Your task to perform on an android device: Go to Google maps Image 0: 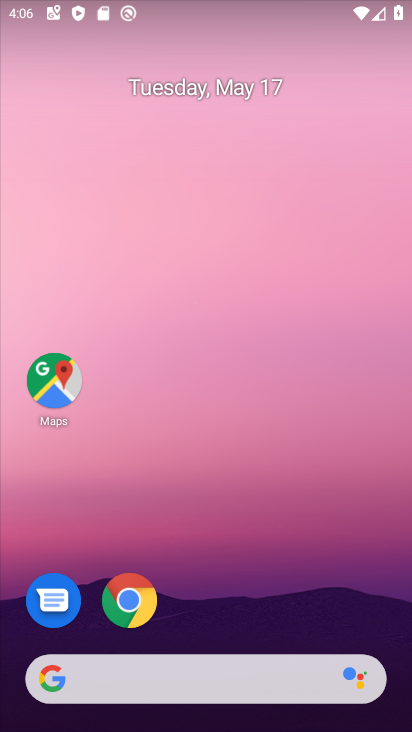
Step 0: drag from (225, 618) to (315, 48)
Your task to perform on an android device: Go to Google maps Image 1: 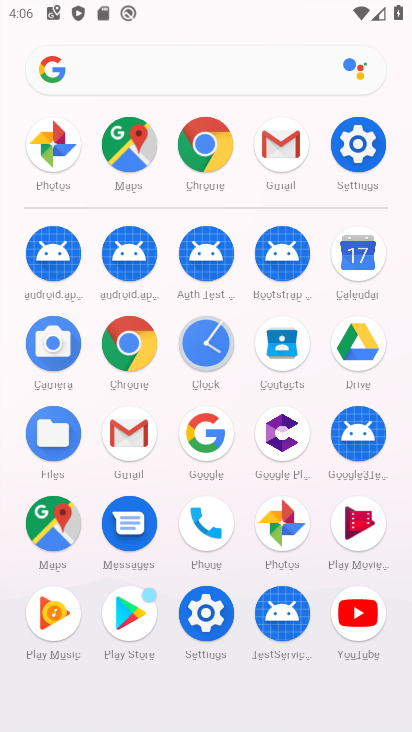
Step 1: click (48, 521)
Your task to perform on an android device: Go to Google maps Image 2: 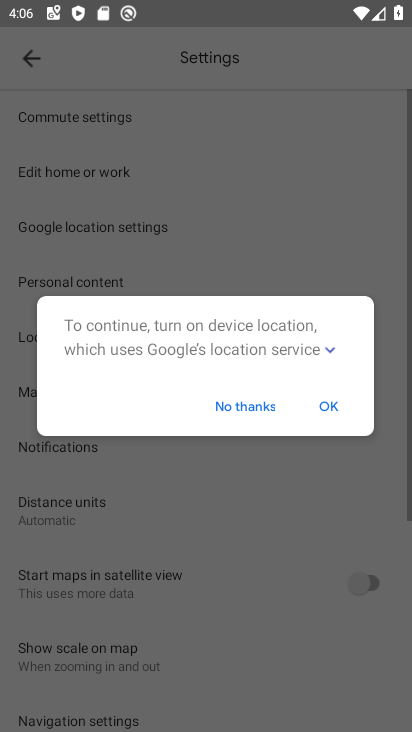
Step 2: click (40, 73)
Your task to perform on an android device: Go to Google maps Image 3: 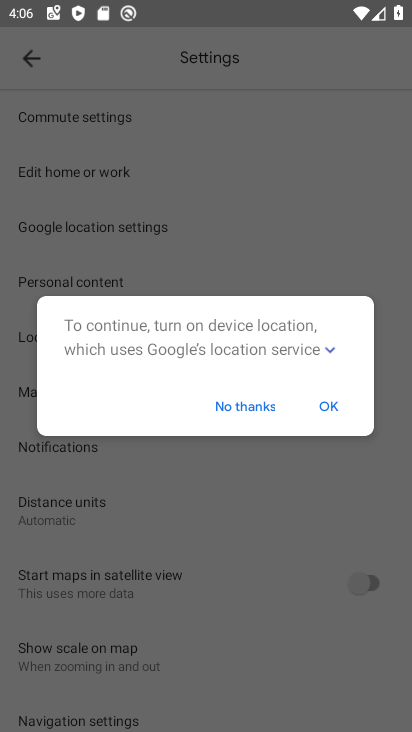
Step 3: click (245, 409)
Your task to perform on an android device: Go to Google maps Image 4: 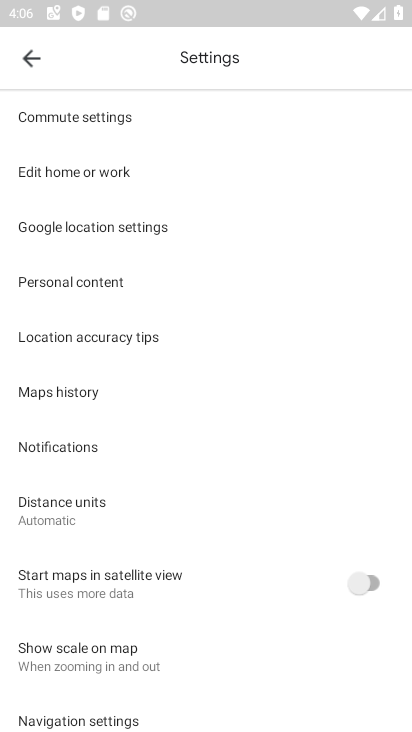
Step 4: click (28, 55)
Your task to perform on an android device: Go to Google maps Image 5: 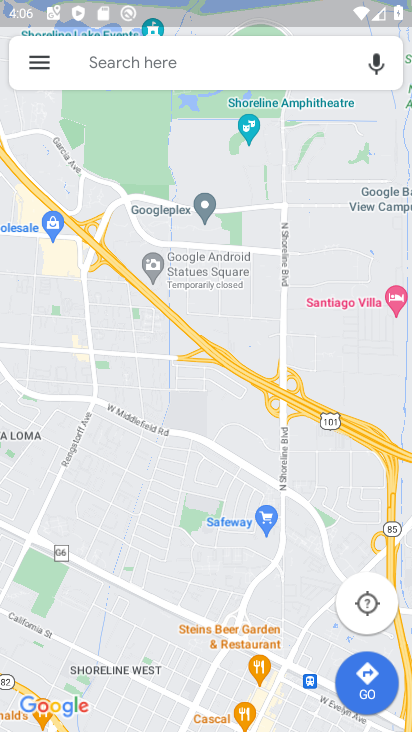
Step 5: task complete